Your task to perform on an android device: Go to calendar. Show me events next week Image 0: 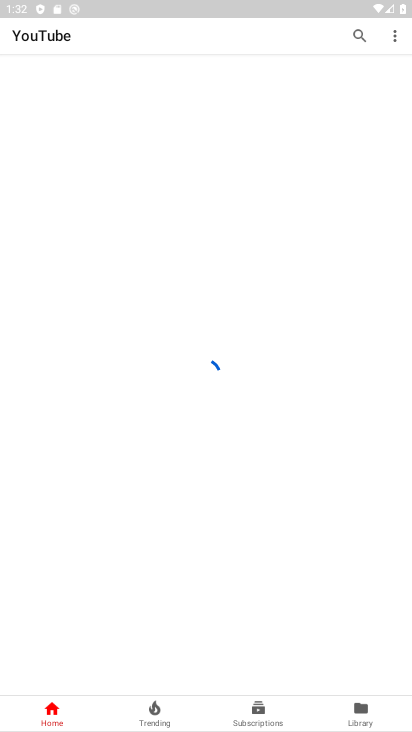
Step 0: drag from (198, 666) to (175, 96)
Your task to perform on an android device: Go to calendar. Show me events next week Image 1: 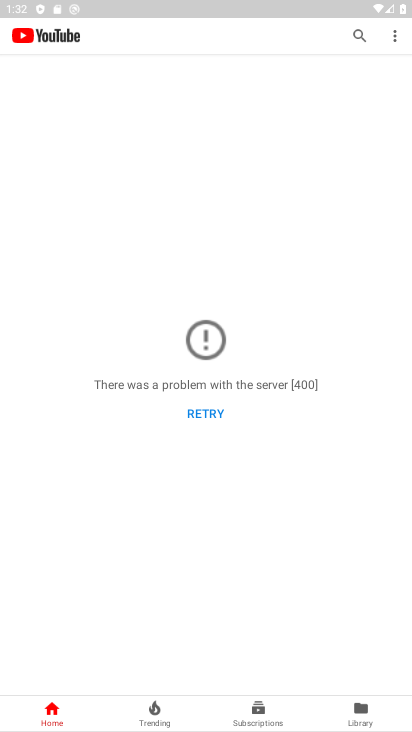
Step 1: press home button
Your task to perform on an android device: Go to calendar. Show me events next week Image 2: 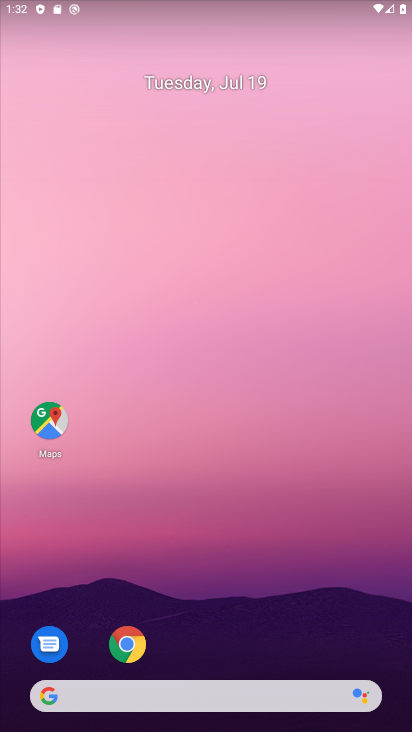
Step 2: drag from (221, 671) to (222, 116)
Your task to perform on an android device: Go to calendar. Show me events next week Image 3: 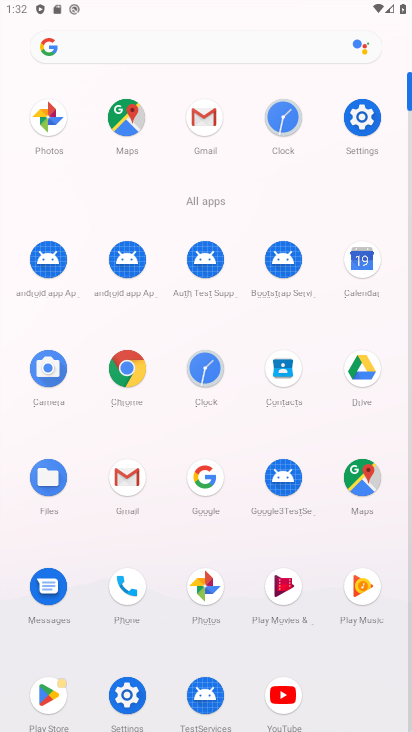
Step 3: click (366, 259)
Your task to perform on an android device: Go to calendar. Show me events next week Image 4: 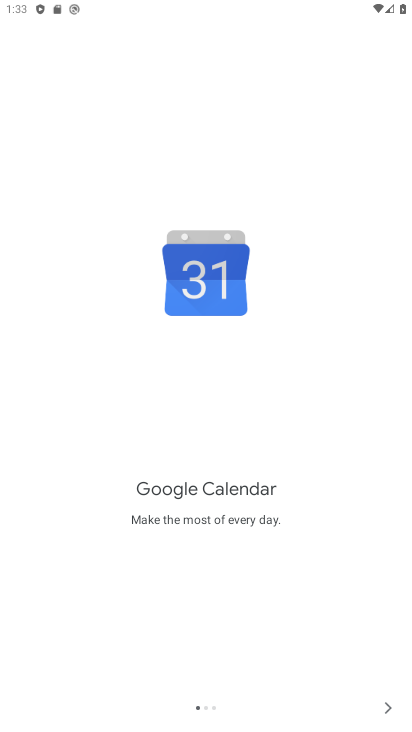
Step 4: click (377, 694)
Your task to perform on an android device: Go to calendar. Show me events next week Image 5: 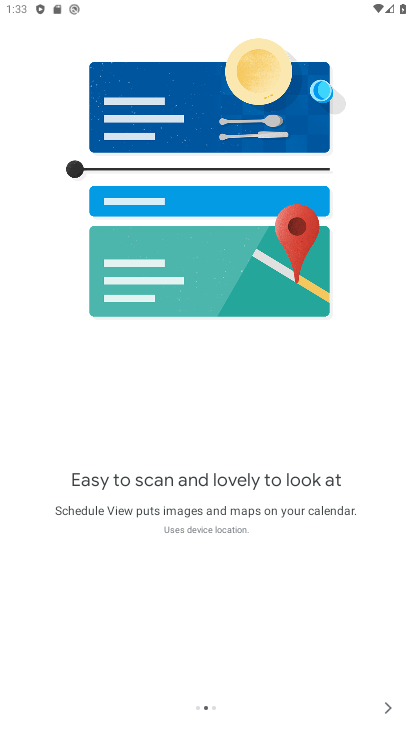
Step 5: click (386, 706)
Your task to perform on an android device: Go to calendar. Show me events next week Image 6: 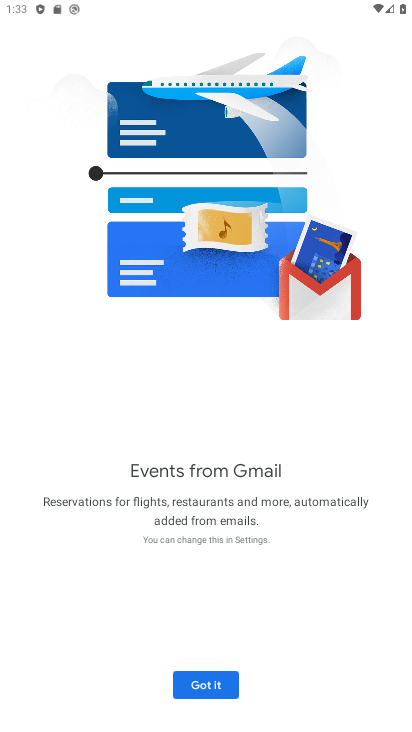
Step 6: click (237, 679)
Your task to perform on an android device: Go to calendar. Show me events next week Image 7: 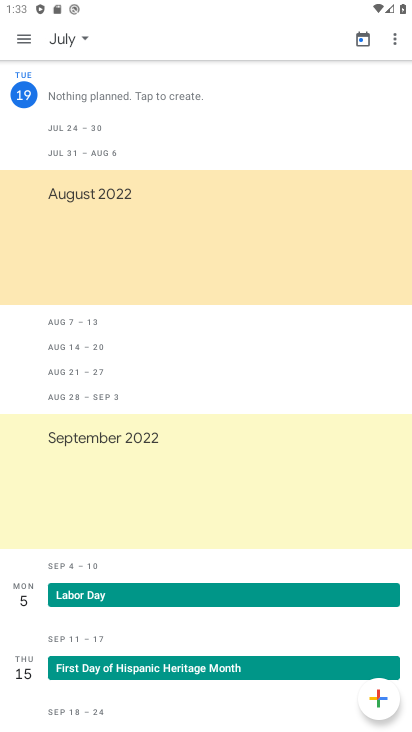
Step 7: click (22, 28)
Your task to perform on an android device: Go to calendar. Show me events next week Image 8: 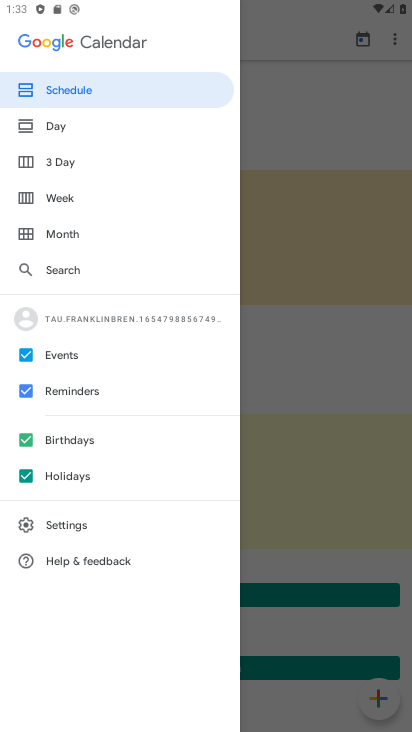
Step 8: click (57, 195)
Your task to perform on an android device: Go to calendar. Show me events next week Image 9: 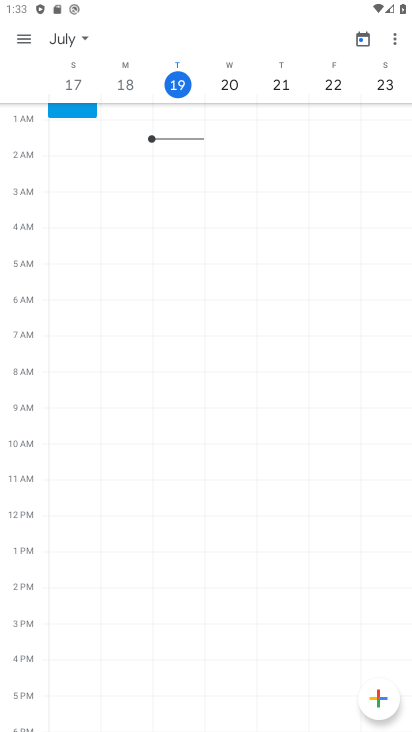
Step 9: task complete